Your task to perform on an android device: choose inbox layout in the gmail app Image 0: 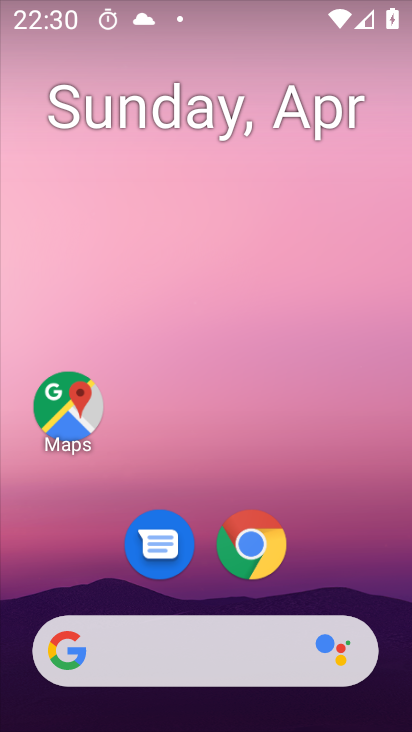
Step 0: drag from (327, 538) to (340, 255)
Your task to perform on an android device: choose inbox layout in the gmail app Image 1: 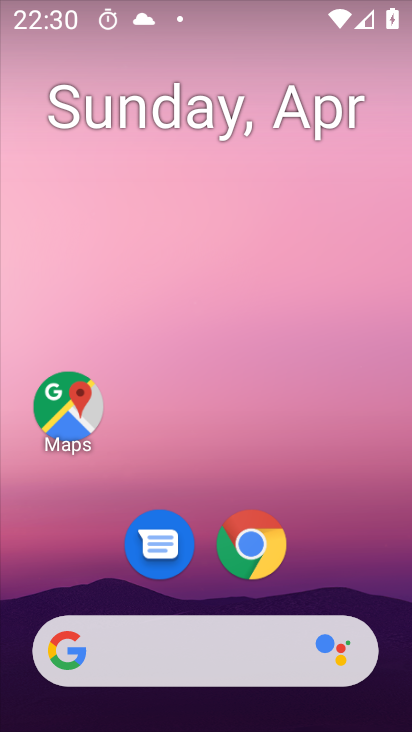
Step 1: drag from (349, 568) to (348, 185)
Your task to perform on an android device: choose inbox layout in the gmail app Image 2: 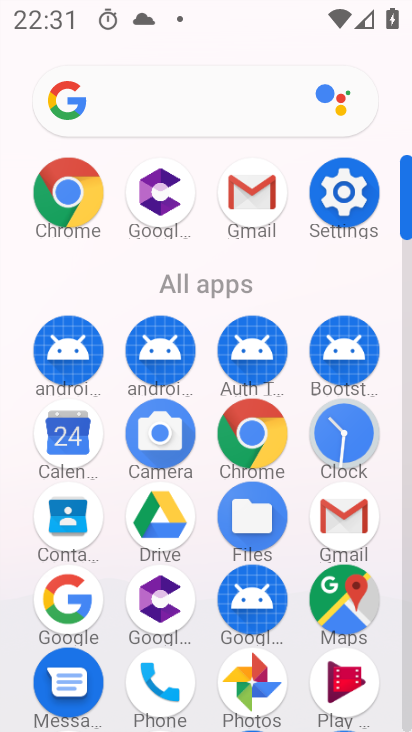
Step 2: click (345, 515)
Your task to perform on an android device: choose inbox layout in the gmail app Image 3: 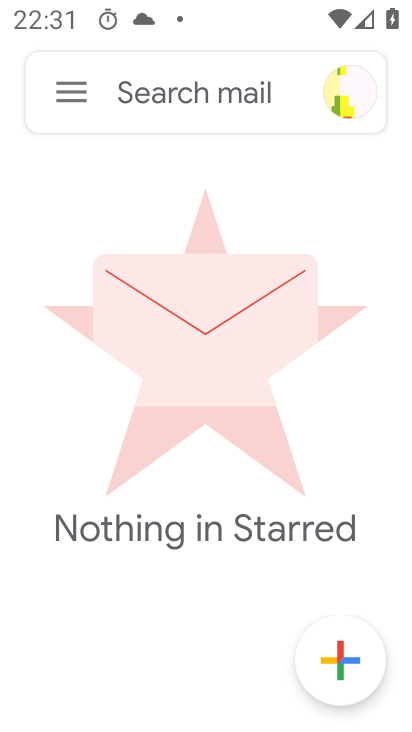
Step 3: click (65, 96)
Your task to perform on an android device: choose inbox layout in the gmail app Image 4: 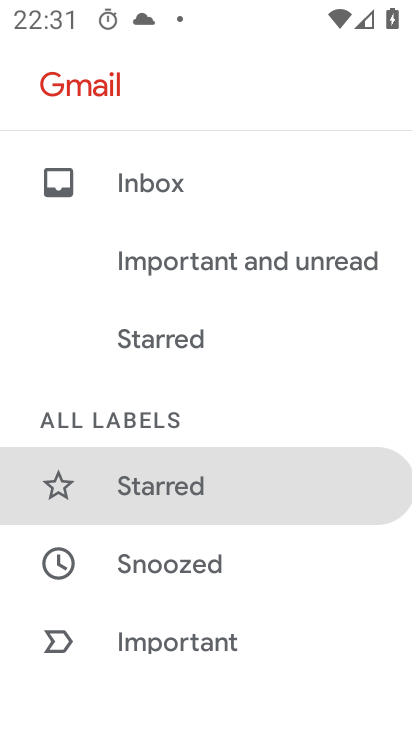
Step 4: drag from (242, 641) to (274, 253)
Your task to perform on an android device: choose inbox layout in the gmail app Image 5: 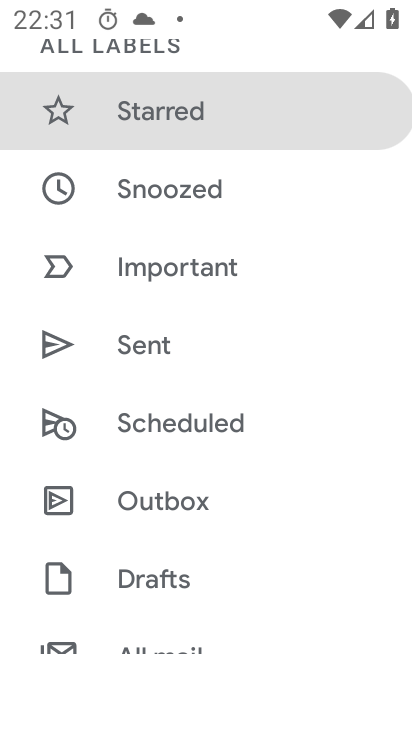
Step 5: drag from (212, 610) to (251, 245)
Your task to perform on an android device: choose inbox layout in the gmail app Image 6: 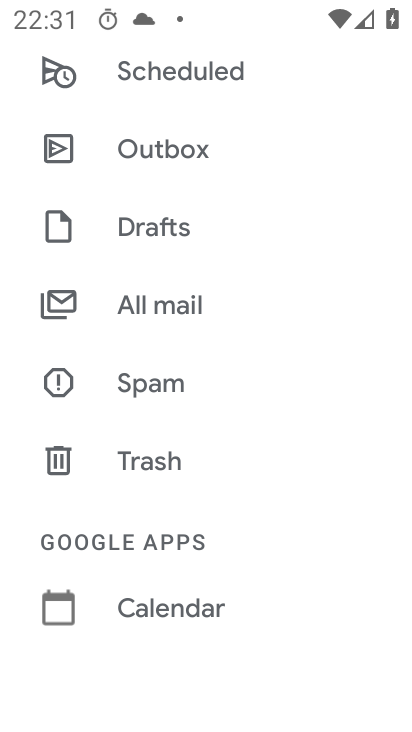
Step 6: drag from (157, 621) to (224, 302)
Your task to perform on an android device: choose inbox layout in the gmail app Image 7: 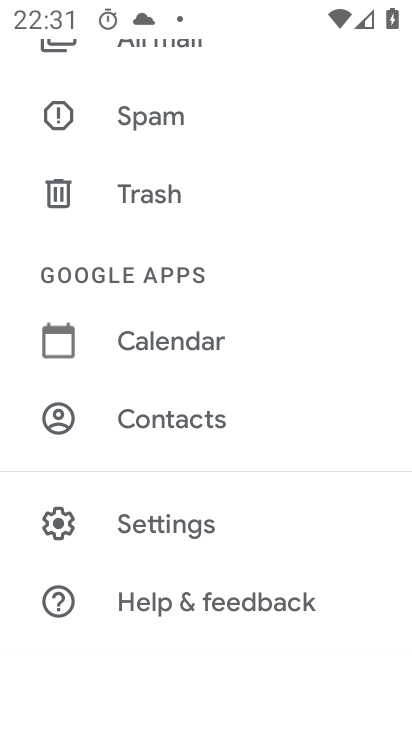
Step 7: click (151, 528)
Your task to perform on an android device: choose inbox layout in the gmail app Image 8: 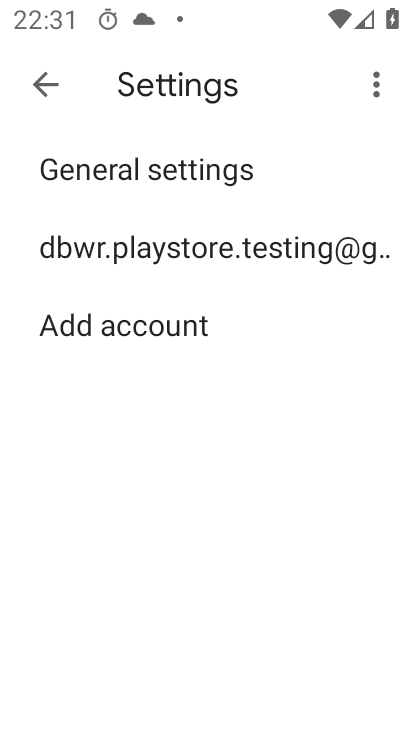
Step 8: click (210, 239)
Your task to perform on an android device: choose inbox layout in the gmail app Image 9: 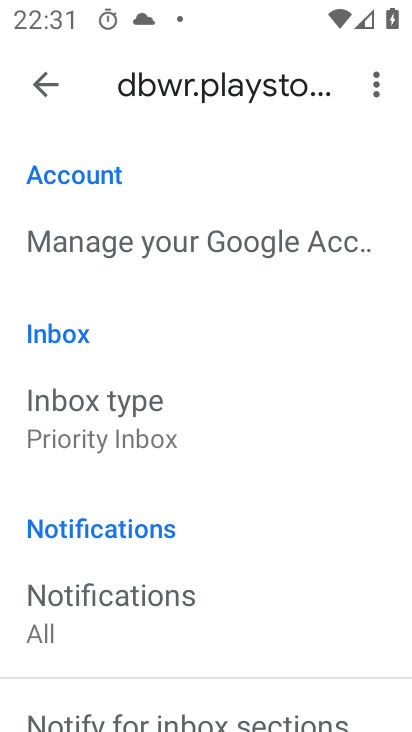
Step 9: click (134, 428)
Your task to perform on an android device: choose inbox layout in the gmail app Image 10: 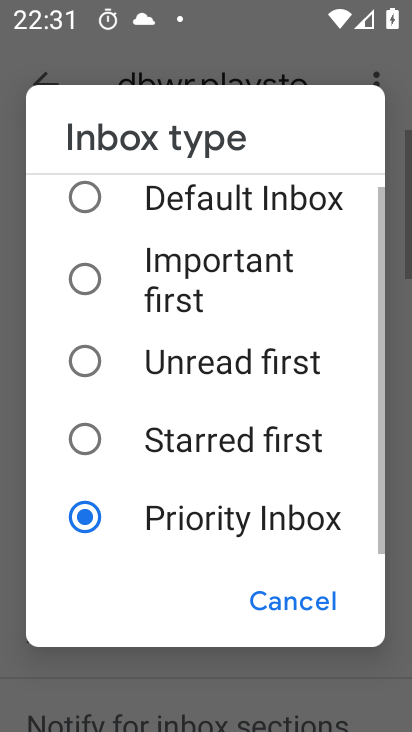
Step 10: click (159, 363)
Your task to perform on an android device: choose inbox layout in the gmail app Image 11: 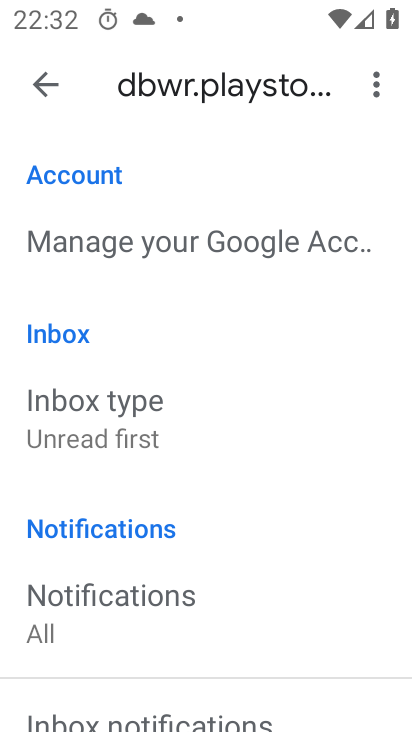
Step 11: task complete